Your task to perform on an android device: Go to network settings Image 0: 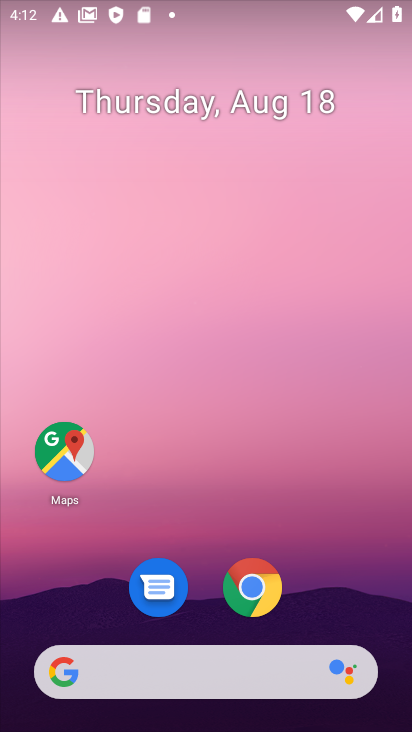
Step 0: drag from (321, 581) to (363, 119)
Your task to perform on an android device: Go to network settings Image 1: 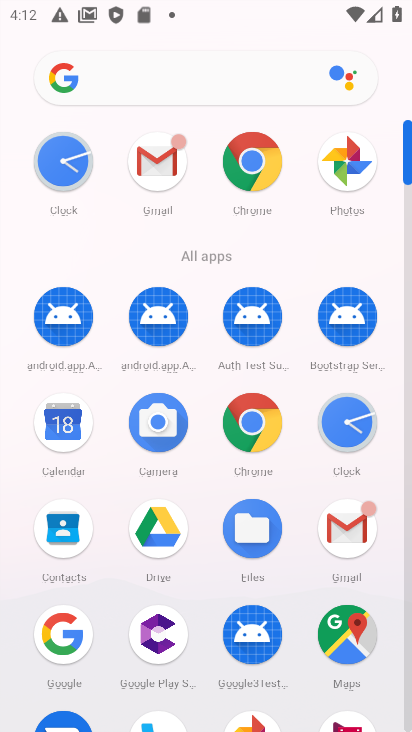
Step 1: drag from (188, 584) to (225, 149)
Your task to perform on an android device: Go to network settings Image 2: 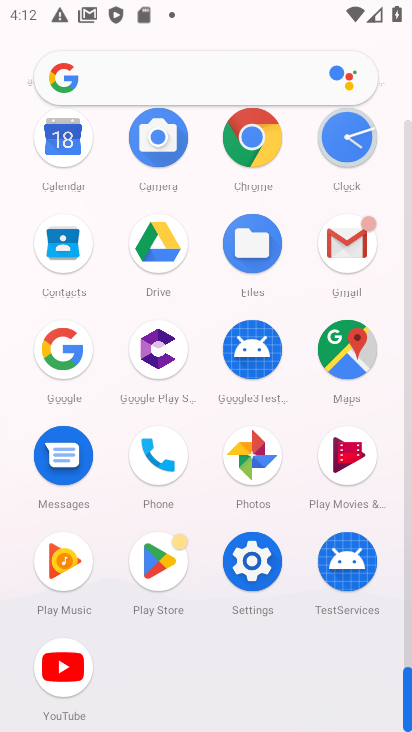
Step 2: click (246, 569)
Your task to perform on an android device: Go to network settings Image 3: 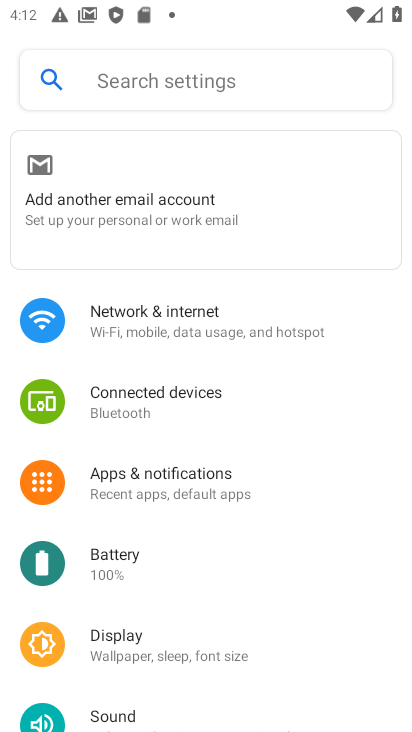
Step 3: click (205, 337)
Your task to perform on an android device: Go to network settings Image 4: 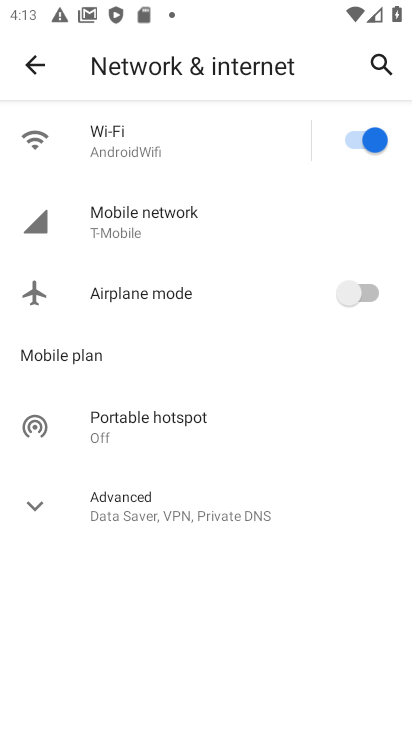
Step 4: task complete